Your task to perform on an android device: toggle translation in the chrome app Image 0: 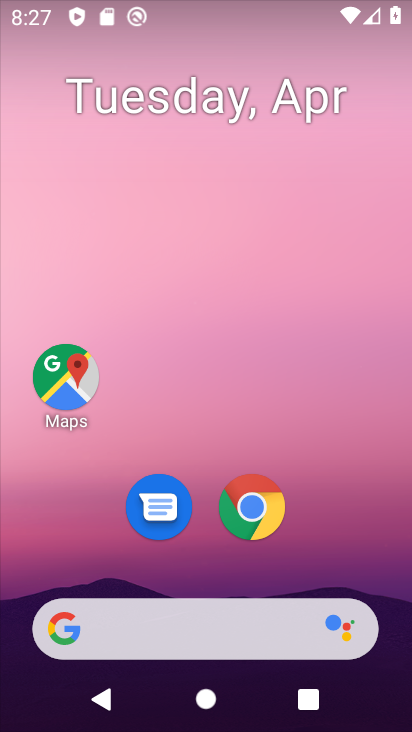
Step 0: click (231, 504)
Your task to perform on an android device: toggle translation in the chrome app Image 1: 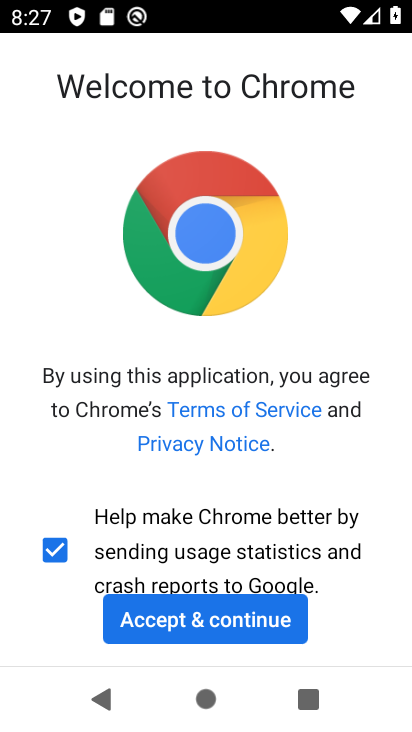
Step 1: click (162, 610)
Your task to perform on an android device: toggle translation in the chrome app Image 2: 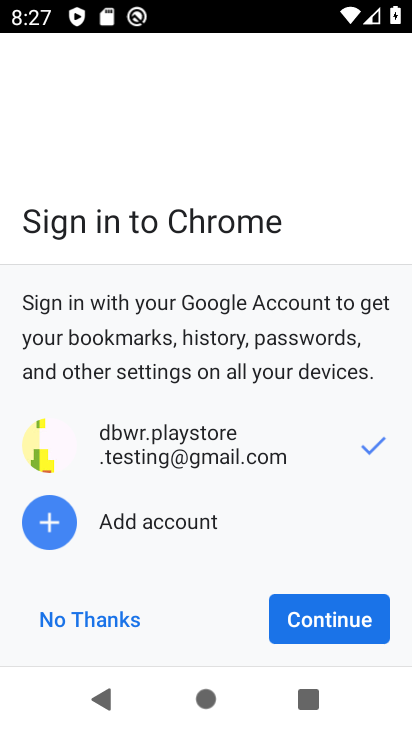
Step 2: click (317, 601)
Your task to perform on an android device: toggle translation in the chrome app Image 3: 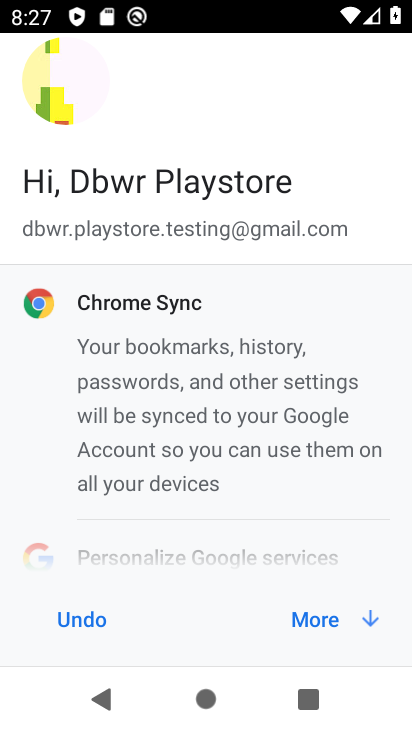
Step 3: click (328, 612)
Your task to perform on an android device: toggle translation in the chrome app Image 4: 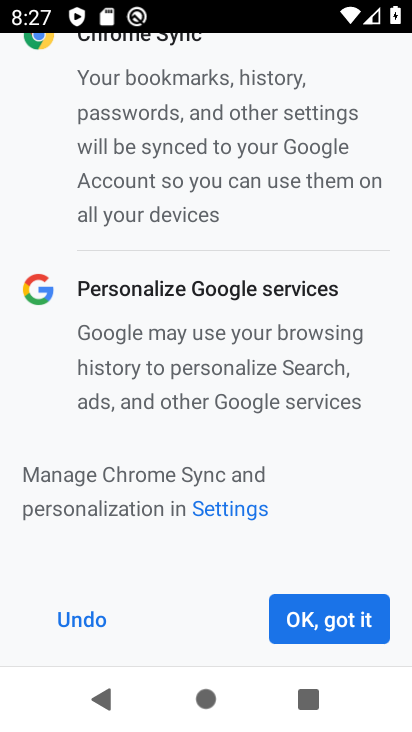
Step 4: click (328, 610)
Your task to perform on an android device: toggle translation in the chrome app Image 5: 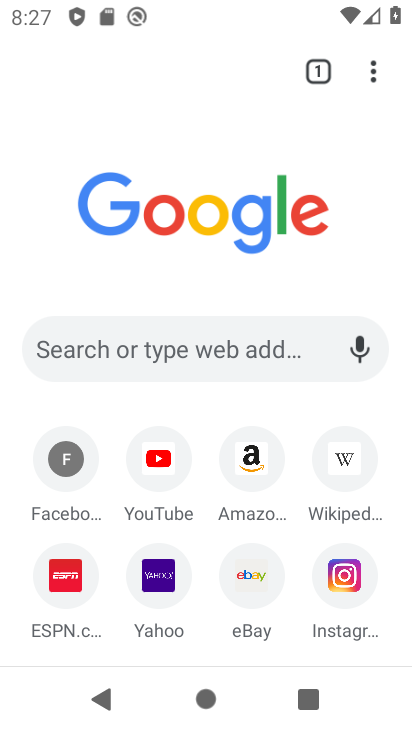
Step 5: drag from (364, 69) to (170, 490)
Your task to perform on an android device: toggle translation in the chrome app Image 6: 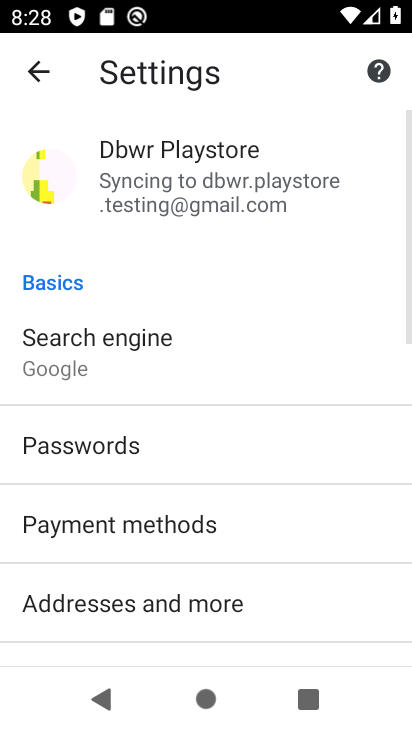
Step 6: drag from (235, 559) to (292, 176)
Your task to perform on an android device: toggle translation in the chrome app Image 7: 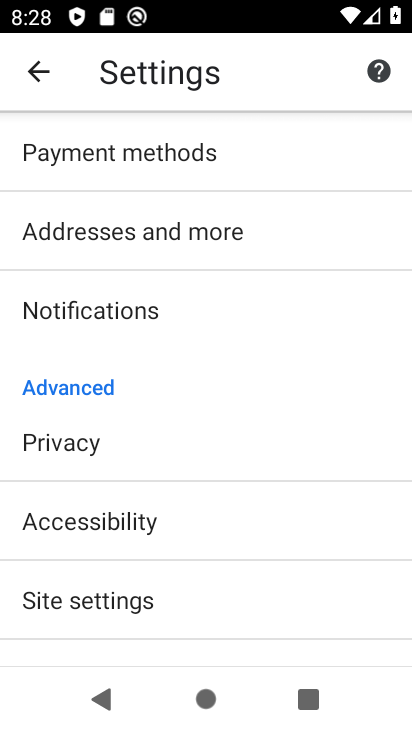
Step 7: drag from (189, 584) to (236, 359)
Your task to perform on an android device: toggle translation in the chrome app Image 8: 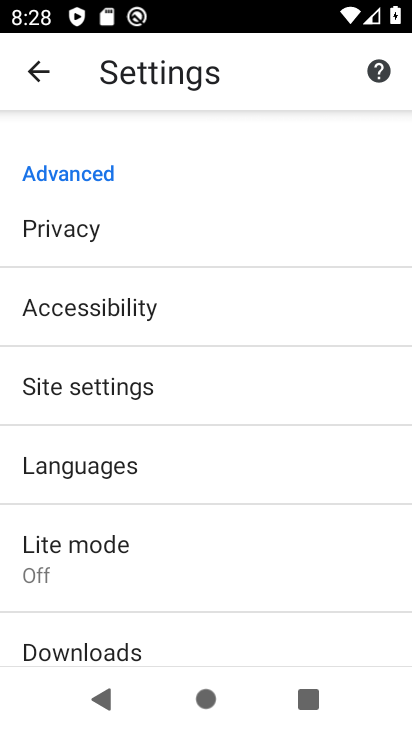
Step 8: click (178, 436)
Your task to perform on an android device: toggle translation in the chrome app Image 9: 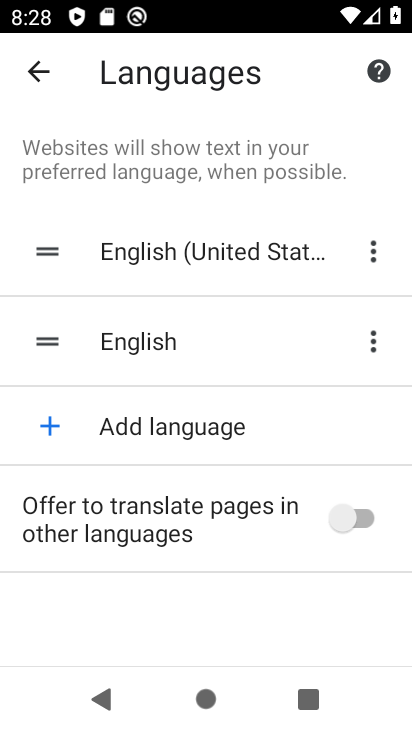
Step 9: click (367, 508)
Your task to perform on an android device: toggle translation in the chrome app Image 10: 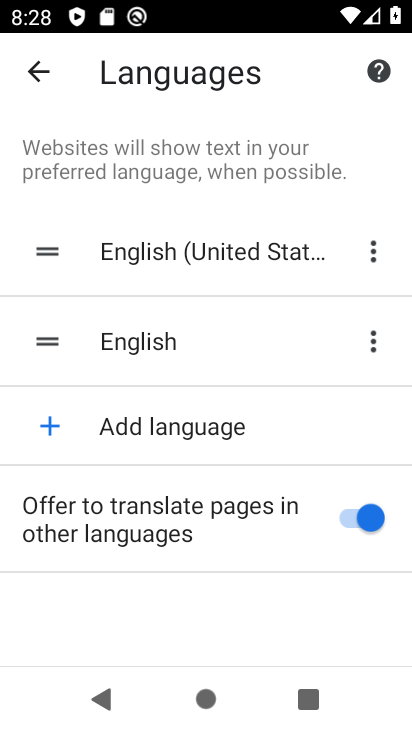
Step 10: task complete